Your task to perform on an android device: Go to wifi settings Image 0: 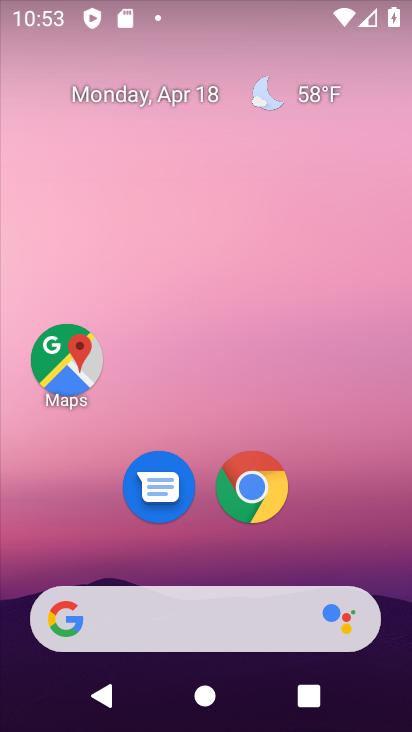
Step 0: drag from (290, 10) to (212, 499)
Your task to perform on an android device: Go to wifi settings Image 1: 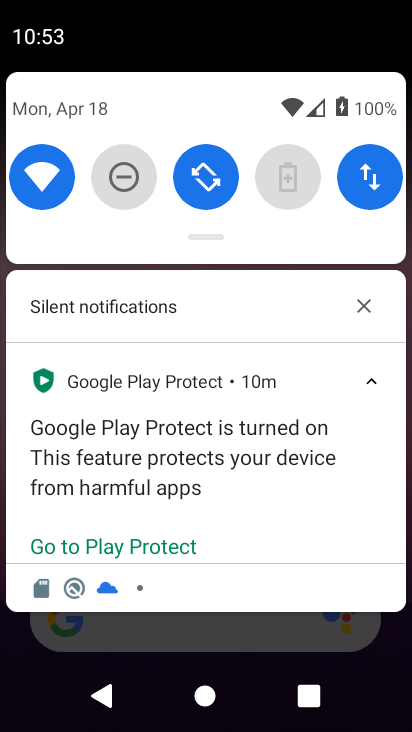
Step 1: click (52, 165)
Your task to perform on an android device: Go to wifi settings Image 2: 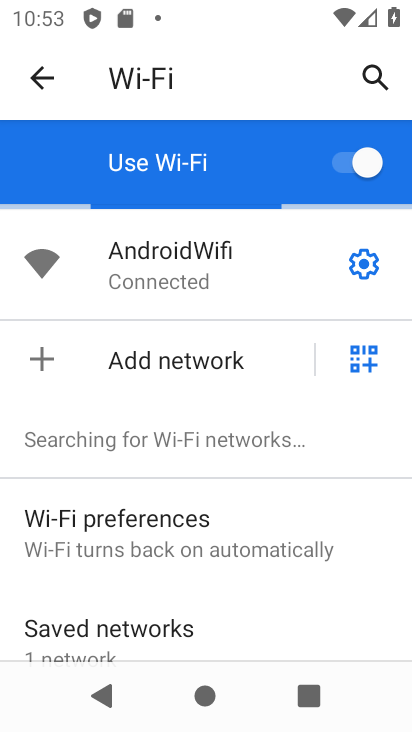
Step 2: task complete